Your task to perform on an android device: turn off airplane mode Image 0: 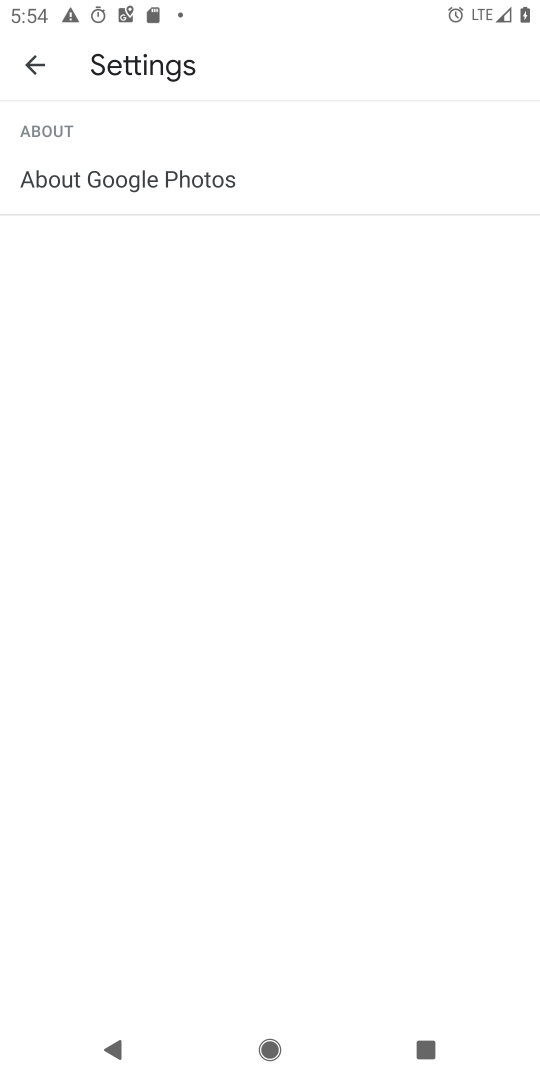
Step 0: press back button
Your task to perform on an android device: turn off airplane mode Image 1: 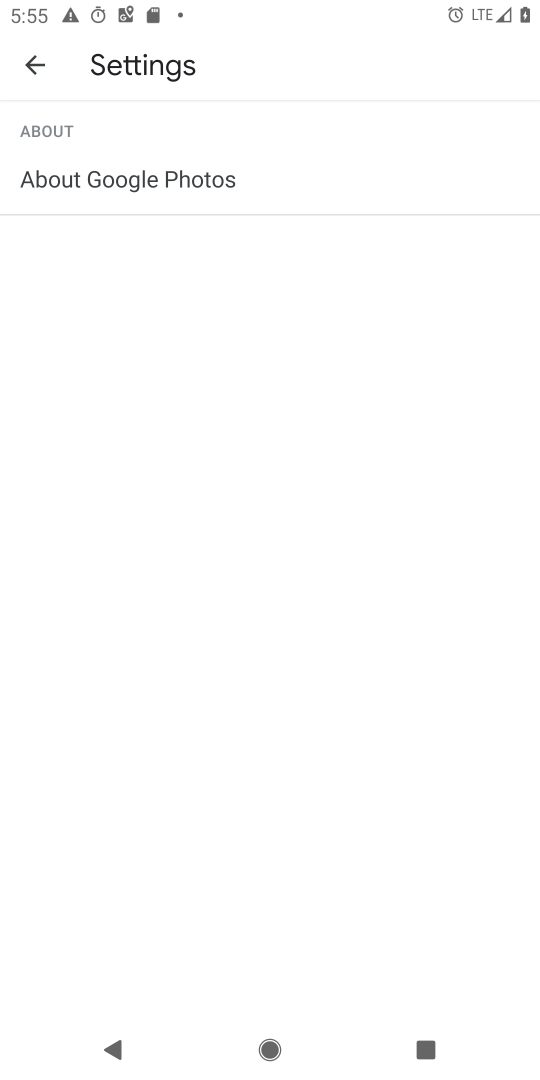
Step 1: task complete